Your task to perform on an android device: Open the stopwatch Image 0: 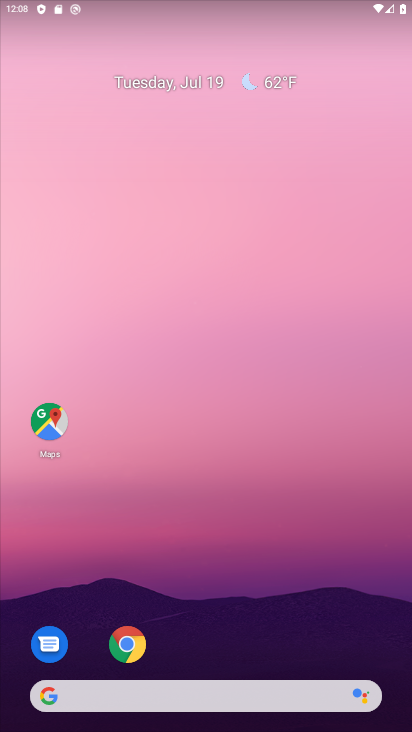
Step 0: drag from (238, 575) to (162, 85)
Your task to perform on an android device: Open the stopwatch Image 1: 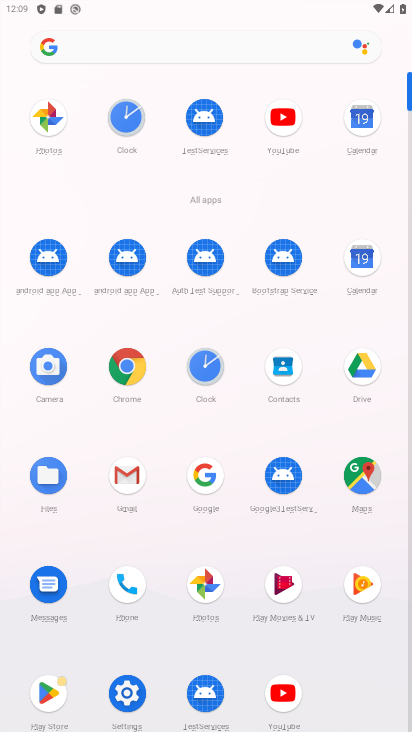
Step 1: click (120, 115)
Your task to perform on an android device: Open the stopwatch Image 2: 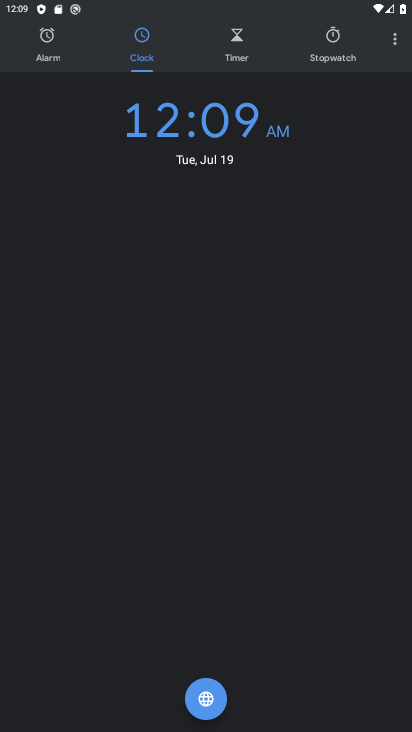
Step 2: click (339, 28)
Your task to perform on an android device: Open the stopwatch Image 3: 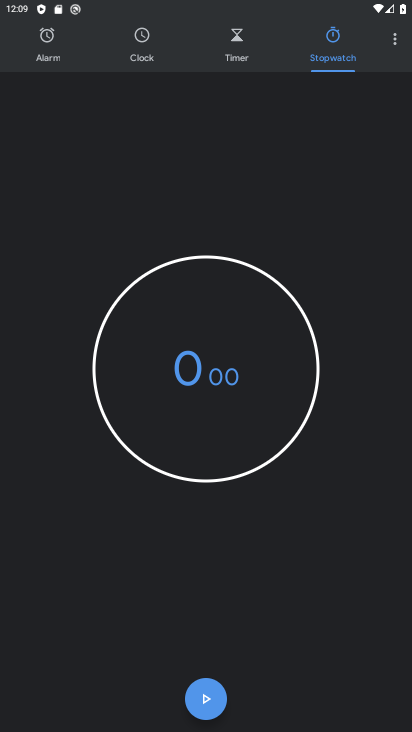
Step 3: task complete